Your task to perform on an android device: Open Reddit.com Image 0: 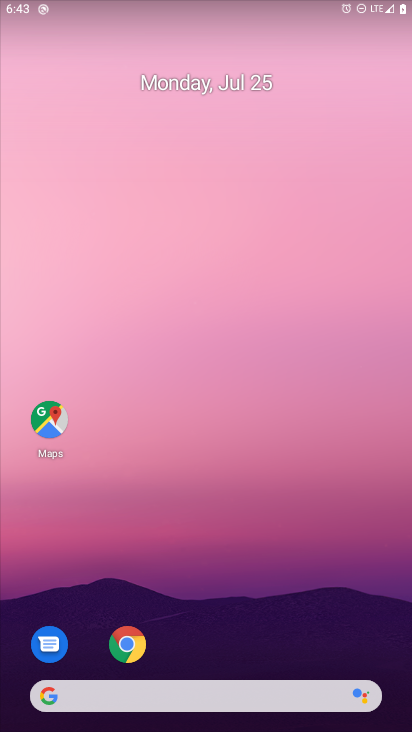
Step 0: press home button
Your task to perform on an android device: Open Reddit.com Image 1: 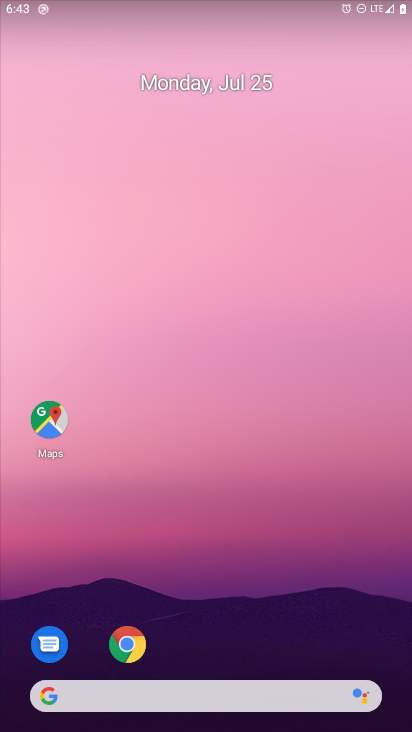
Step 1: click (43, 699)
Your task to perform on an android device: Open Reddit.com Image 2: 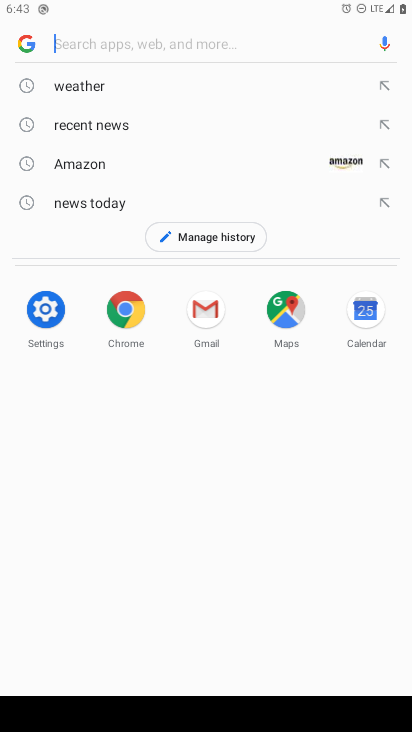
Step 2: type "Reddit.com"
Your task to perform on an android device: Open Reddit.com Image 3: 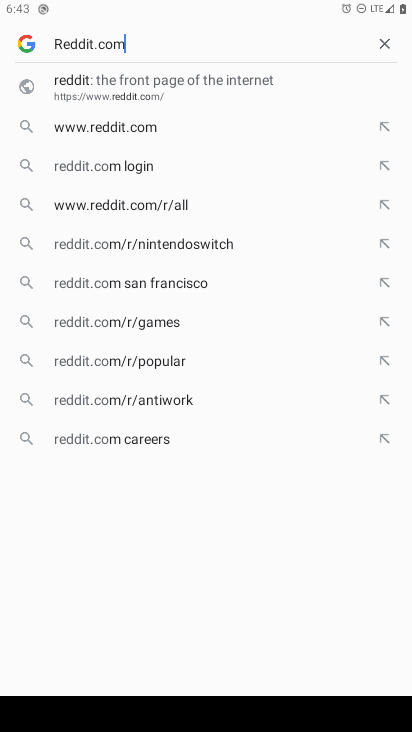
Step 3: press enter
Your task to perform on an android device: Open Reddit.com Image 4: 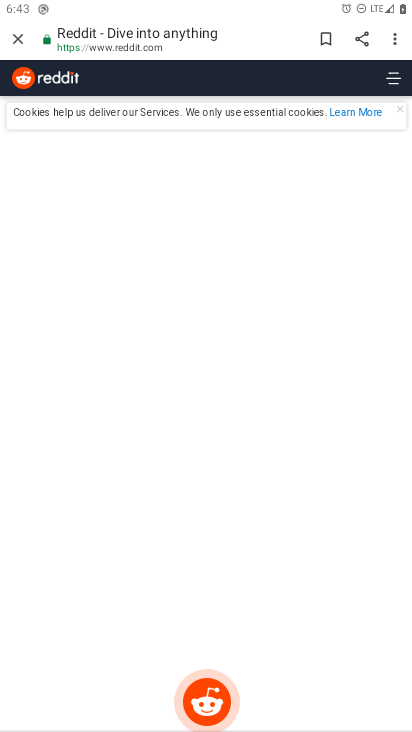
Step 4: task complete